Your task to perform on an android device: Open Google Maps and go to "Timeline" Image 0: 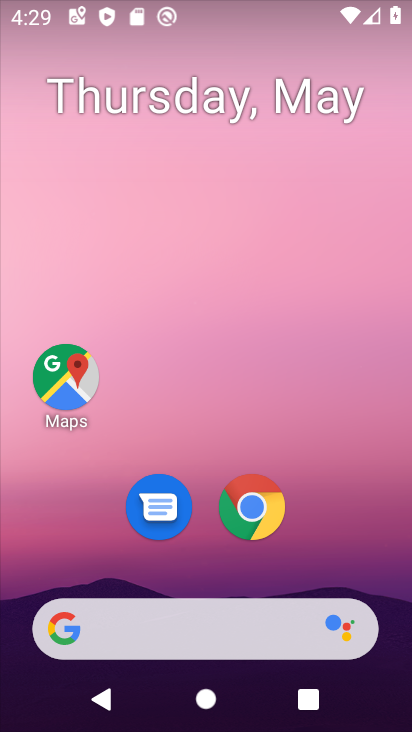
Step 0: drag from (356, 567) to (175, 160)
Your task to perform on an android device: Open Google Maps and go to "Timeline" Image 1: 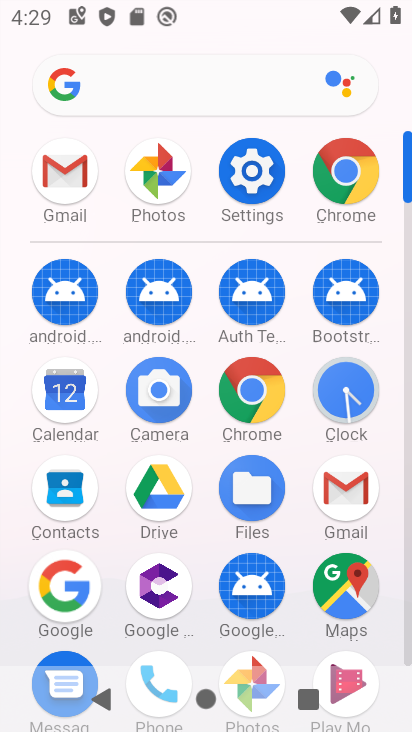
Step 1: click (361, 597)
Your task to perform on an android device: Open Google Maps and go to "Timeline" Image 2: 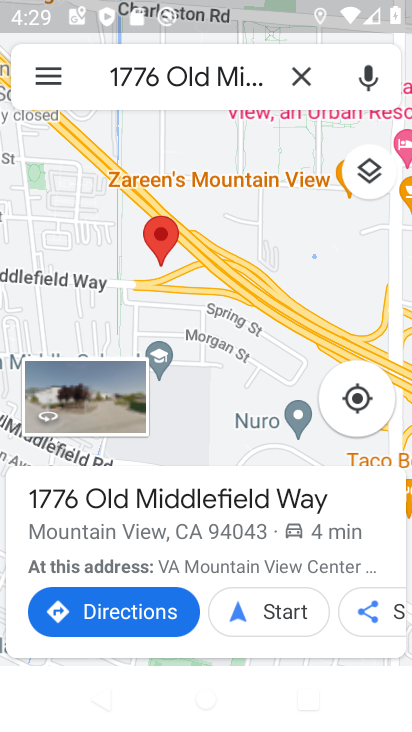
Step 2: click (44, 86)
Your task to perform on an android device: Open Google Maps and go to "Timeline" Image 3: 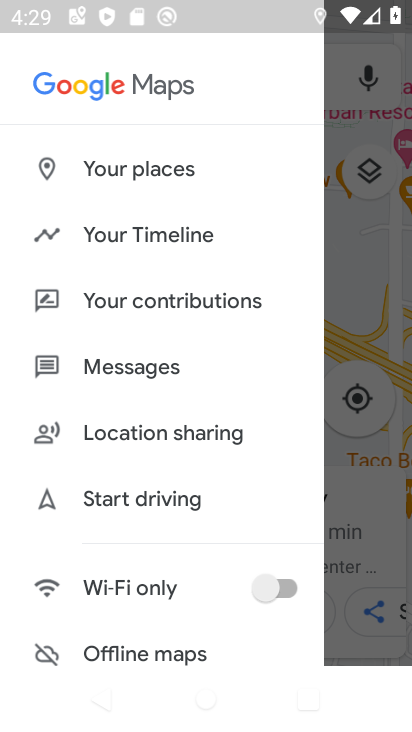
Step 3: click (160, 236)
Your task to perform on an android device: Open Google Maps and go to "Timeline" Image 4: 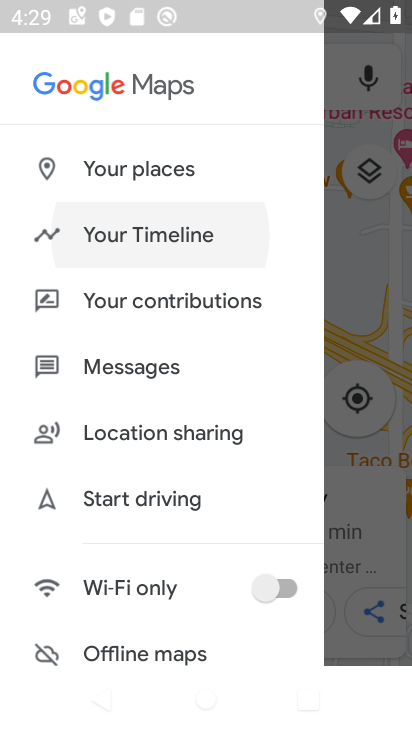
Step 4: click (161, 237)
Your task to perform on an android device: Open Google Maps and go to "Timeline" Image 5: 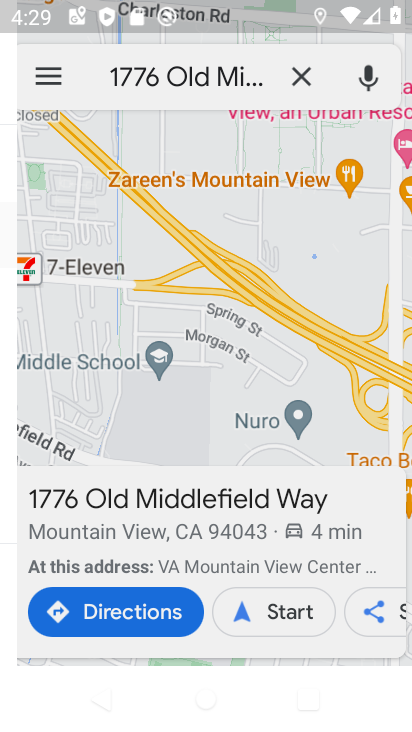
Step 5: click (161, 237)
Your task to perform on an android device: Open Google Maps and go to "Timeline" Image 6: 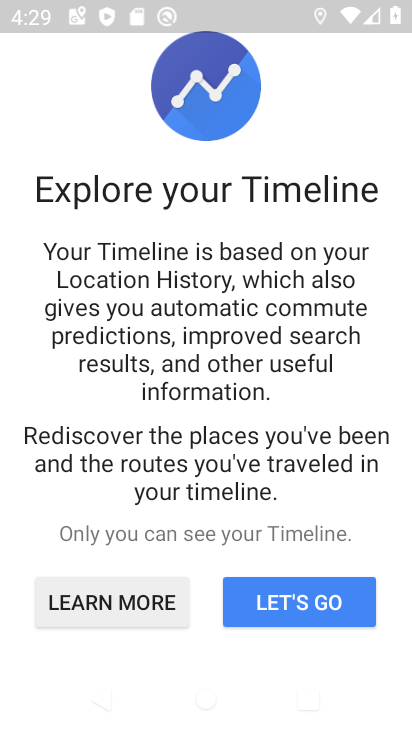
Step 6: click (162, 237)
Your task to perform on an android device: Open Google Maps and go to "Timeline" Image 7: 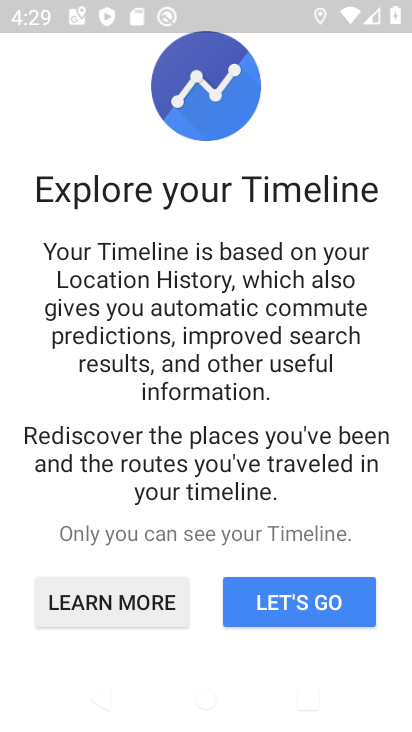
Step 7: click (303, 610)
Your task to perform on an android device: Open Google Maps and go to "Timeline" Image 8: 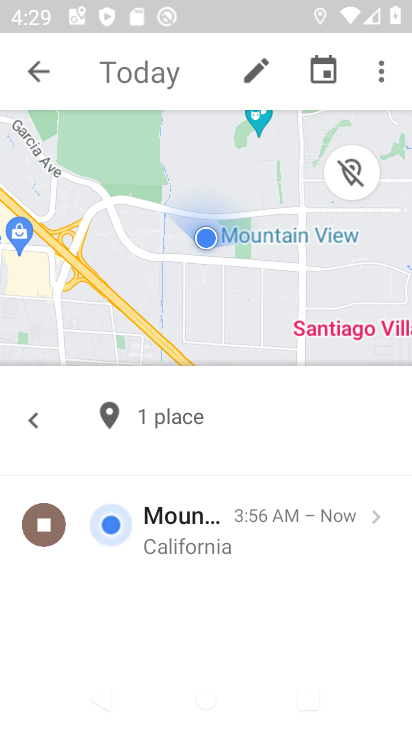
Step 8: task complete